Your task to perform on an android device: empty trash in the gmail app Image 0: 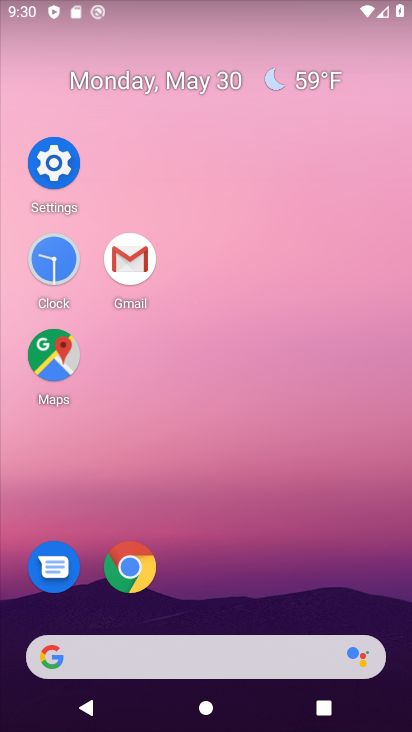
Step 0: drag from (271, 543) to (298, 96)
Your task to perform on an android device: empty trash in the gmail app Image 1: 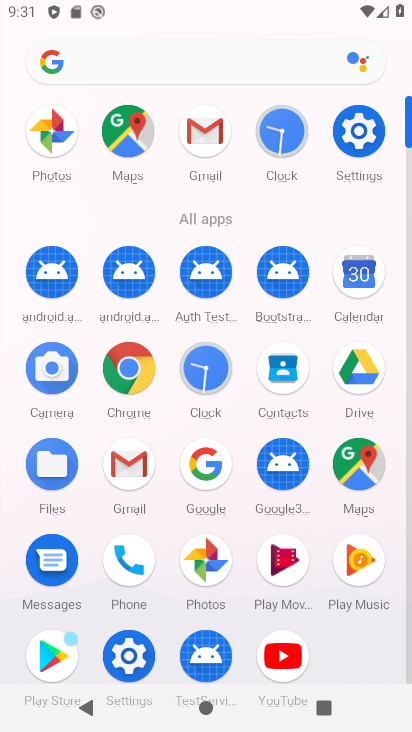
Step 1: click (195, 141)
Your task to perform on an android device: empty trash in the gmail app Image 2: 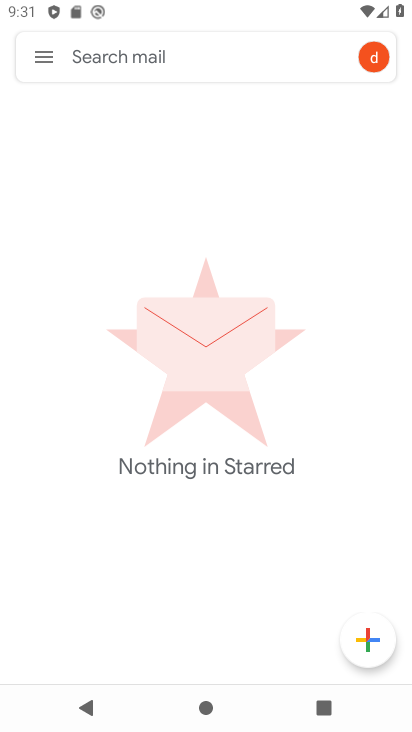
Step 2: click (52, 61)
Your task to perform on an android device: empty trash in the gmail app Image 3: 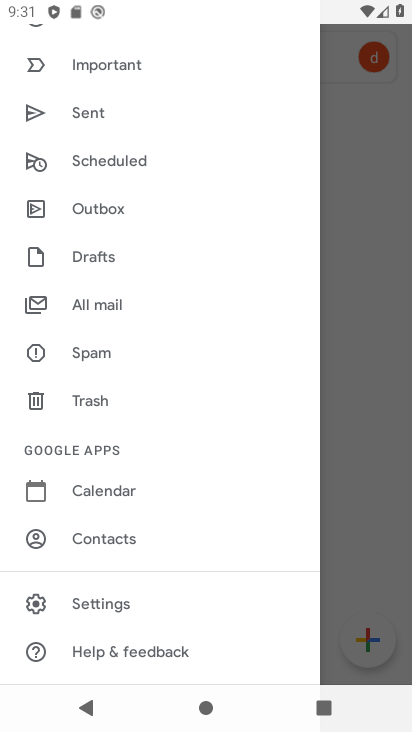
Step 3: drag from (243, 167) to (258, 447)
Your task to perform on an android device: empty trash in the gmail app Image 4: 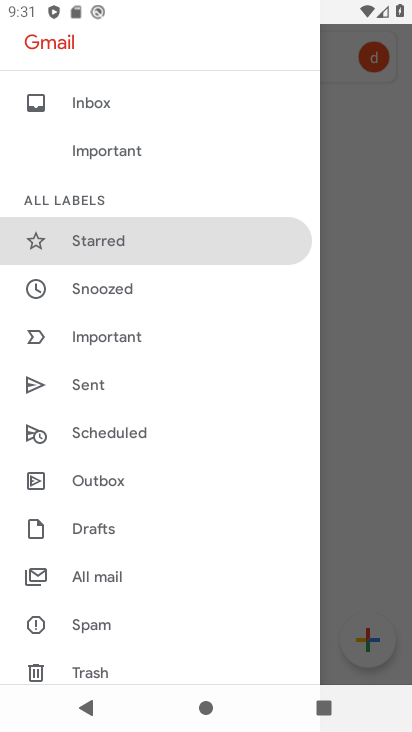
Step 4: drag from (197, 257) to (192, 523)
Your task to perform on an android device: empty trash in the gmail app Image 5: 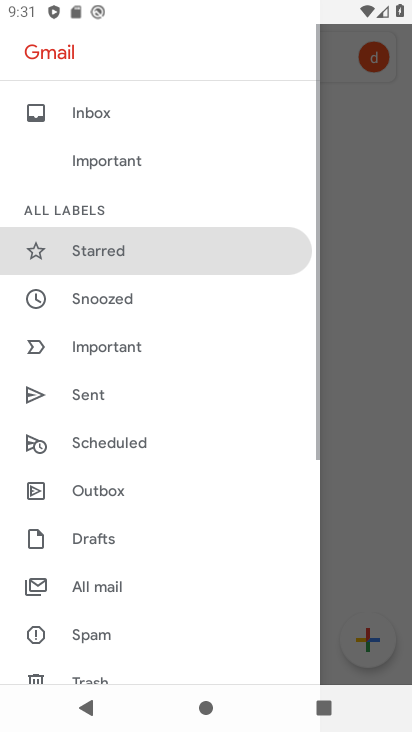
Step 5: drag from (190, 528) to (215, 186)
Your task to perform on an android device: empty trash in the gmail app Image 6: 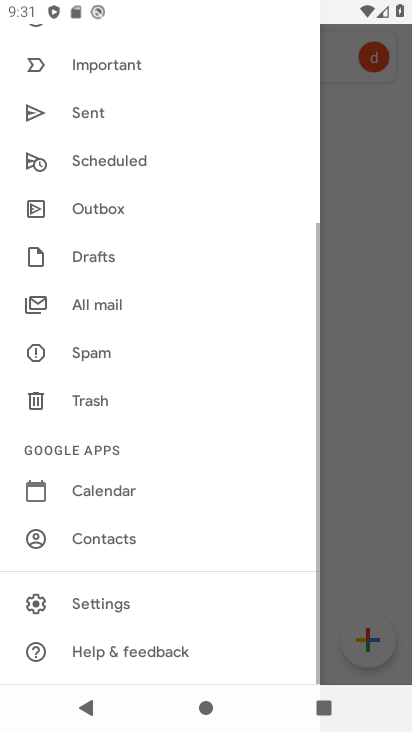
Step 6: click (173, 414)
Your task to perform on an android device: empty trash in the gmail app Image 7: 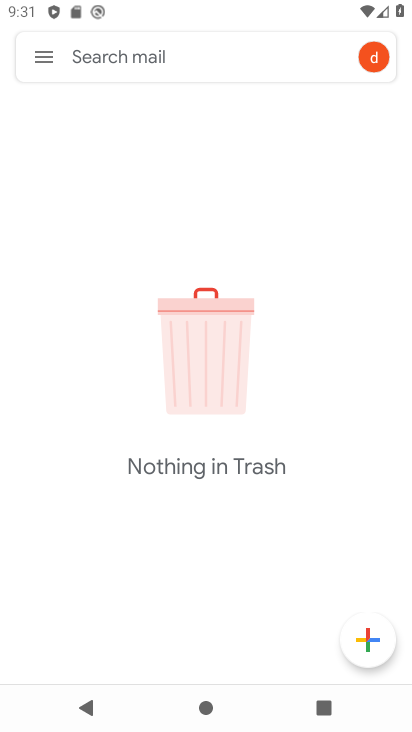
Step 7: task complete